Your task to perform on an android device: change alarm snooze length Image 0: 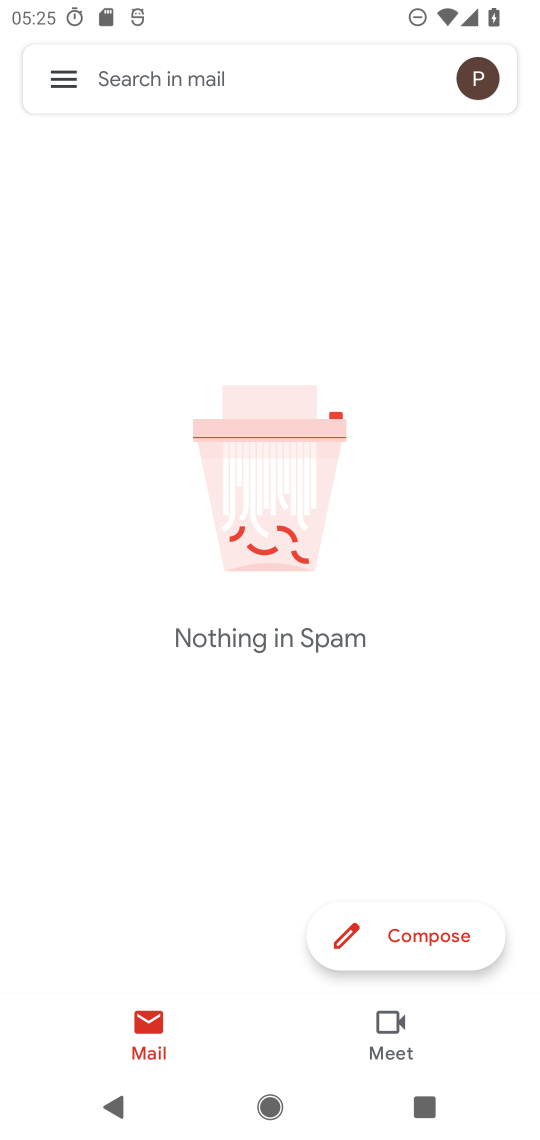
Step 0: press home button
Your task to perform on an android device: change alarm snooze length Image 1: 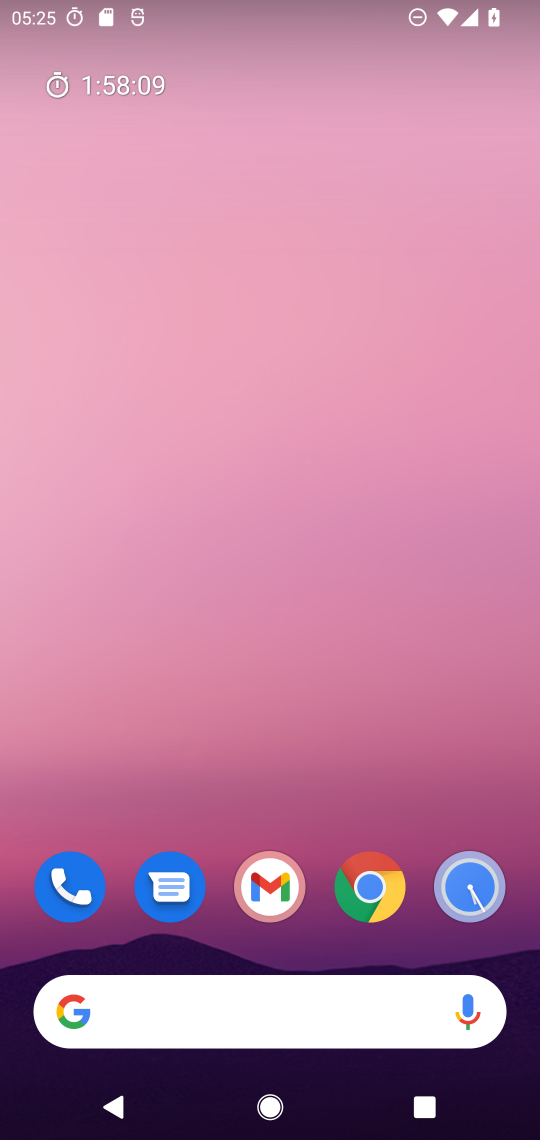
Step 1: drag from (421, 730) to (439, 259)
Your task to perform on an android device: change alarm snooze length Image 2: 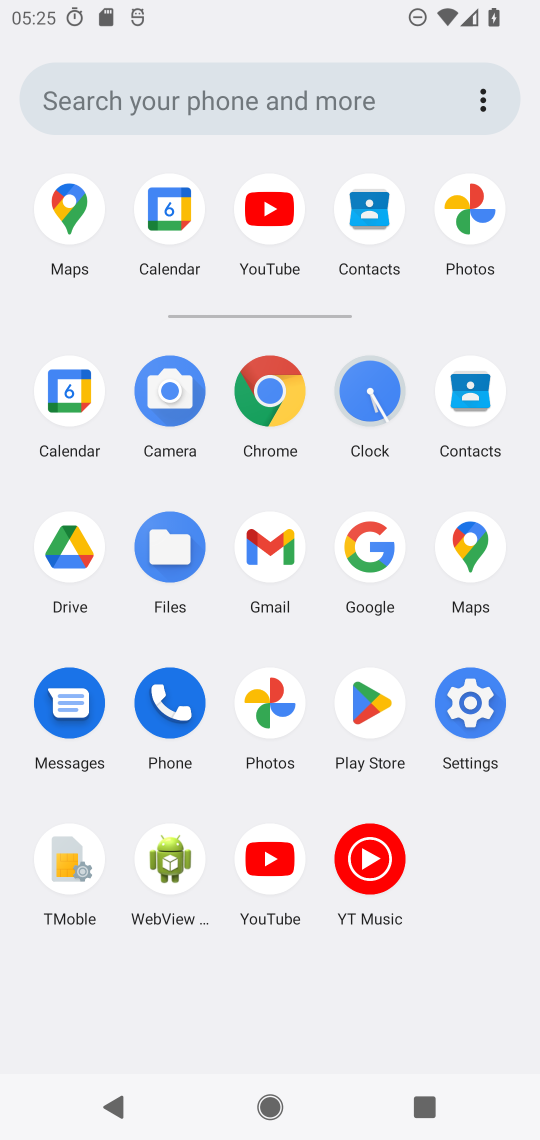
Step 2: click (370, 397)
Your task to perform on an android device: change alarm snooze length Image 3: 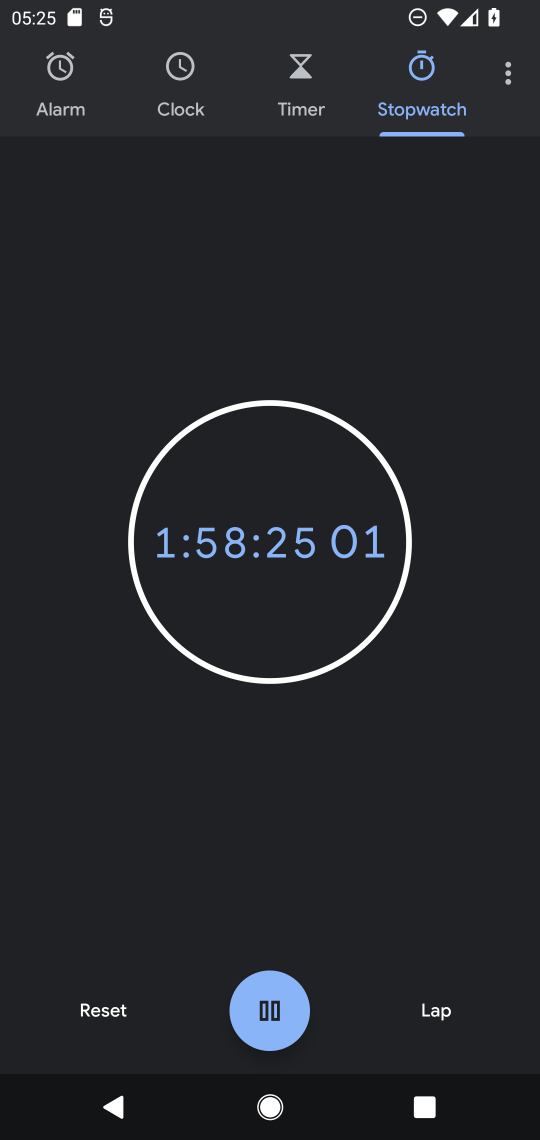
Step 3: click (509, 73)
Your task to perform on an android device: change alarm snooze length Image 4: 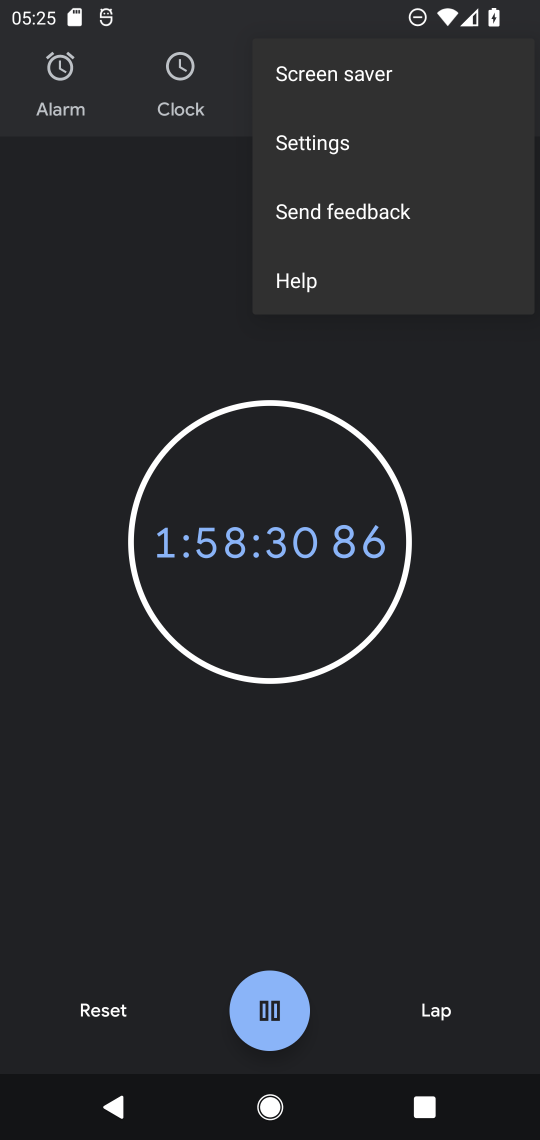
Step 4: click (332, 142)
Your task to perform on an android device: change alarm snooze length Image 5: 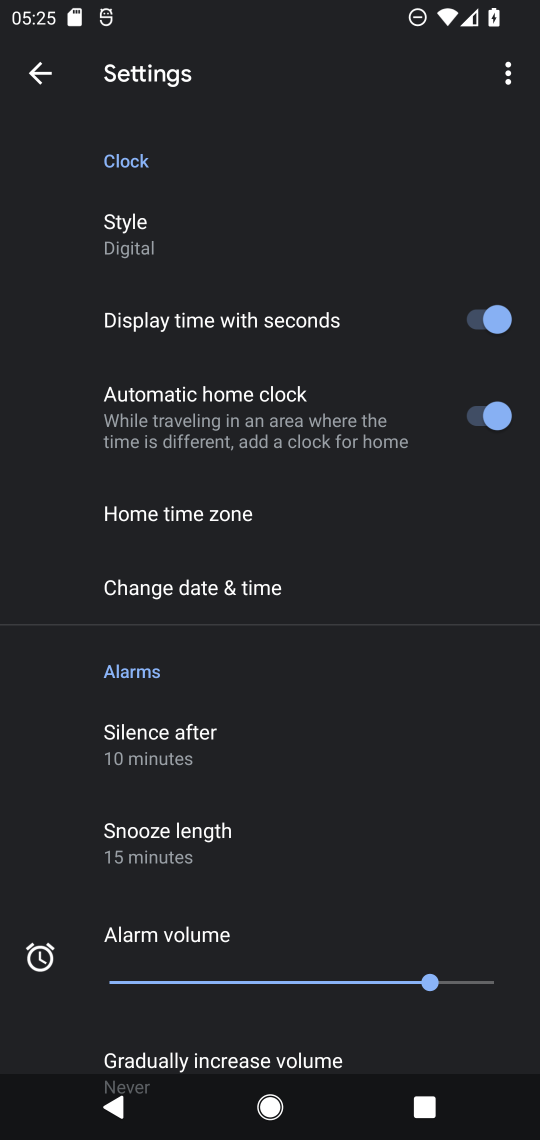
Step 5: drag from (365, 546) to (381, 454)
Your task to perform on an android device: change alarm snooze length Image 6: 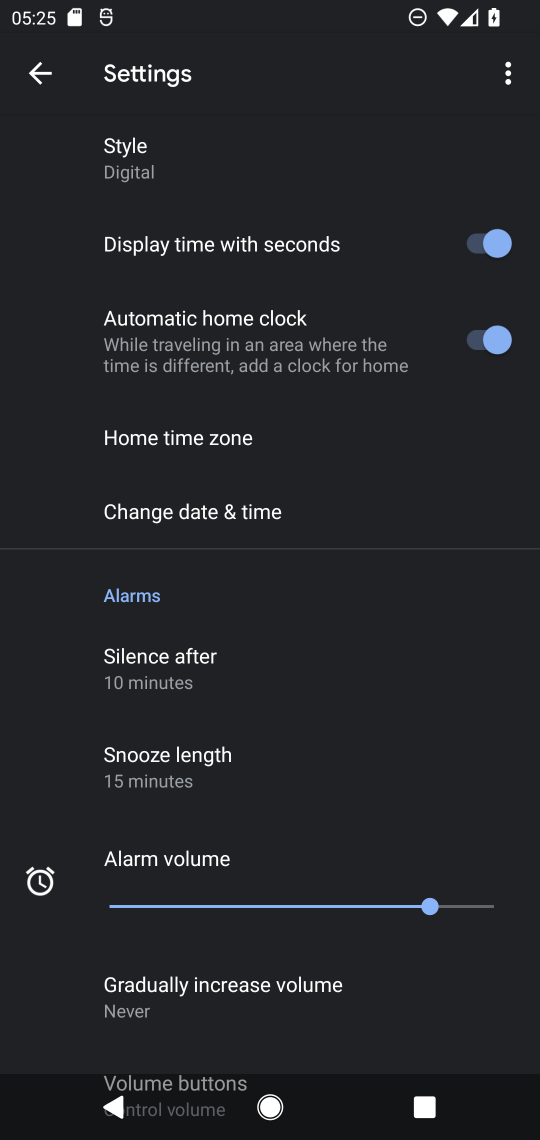
Step 6: drag from (386, 600) to (407, 473)
Your task to perform on an android device: change alarm snooze length Image 7: 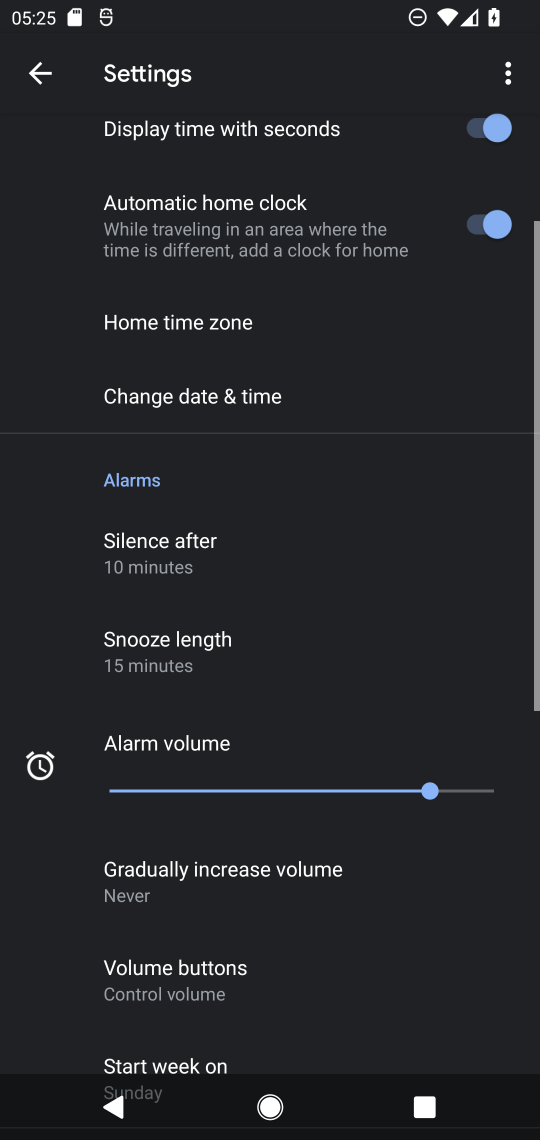
Step 7: drag from (391, 624) to (410, 508)
Your task to perform on an android device: change alarm snooze length Image 8: 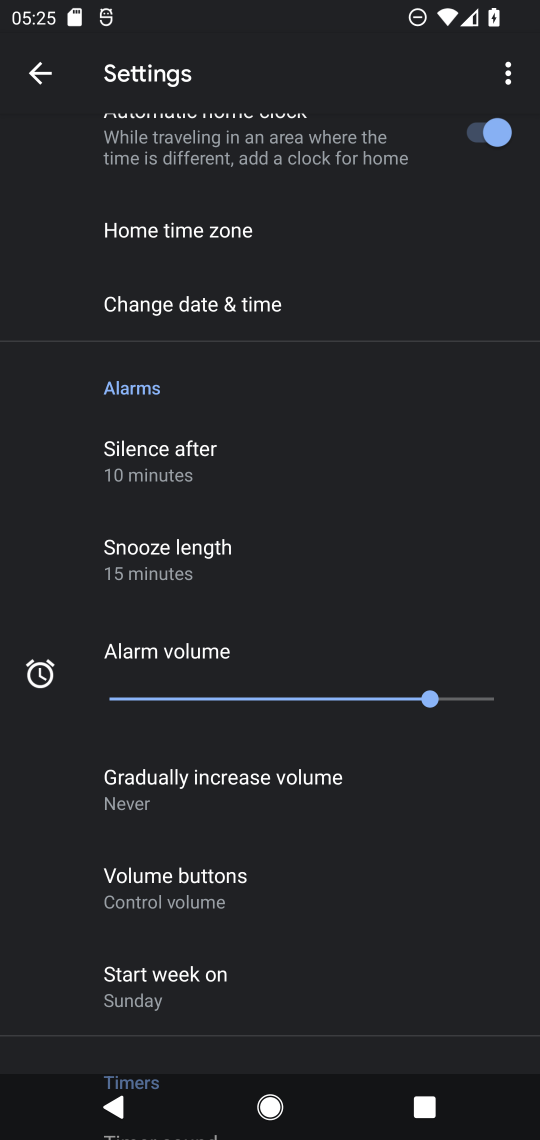
Step 8: drag from (389, 625) to (407, 522)
Your task to perform on an android device: change alarm snooze length Image 9: 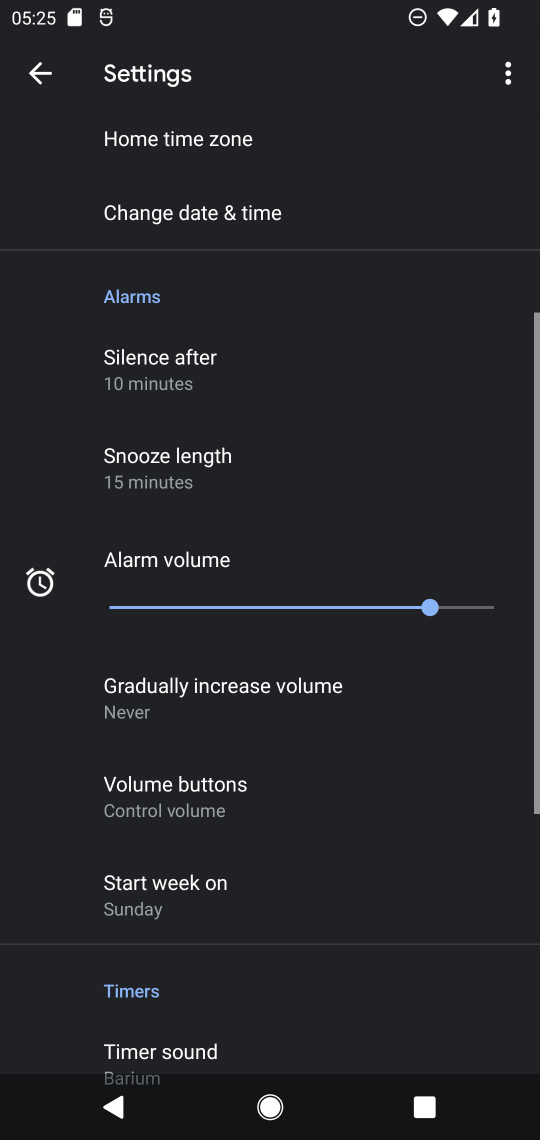
Step 9: drag from (384, 703) to (388, 565)
Your task to perform on an android device: change alarm snooze length Image 10: 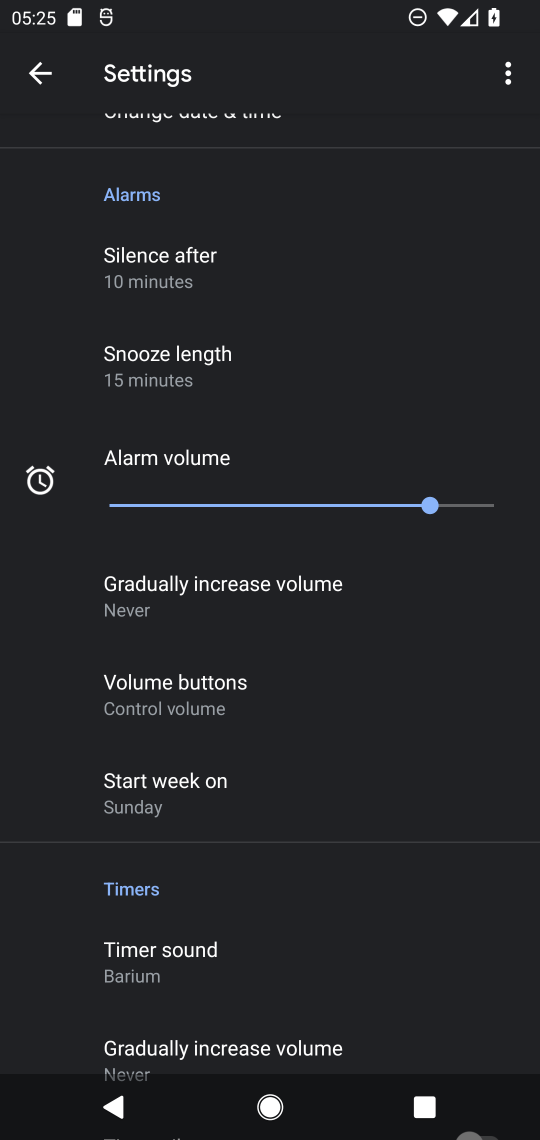
Step 10: click (186, 377)
Your task to perform on an android device: change alarm snooze length Image 11: 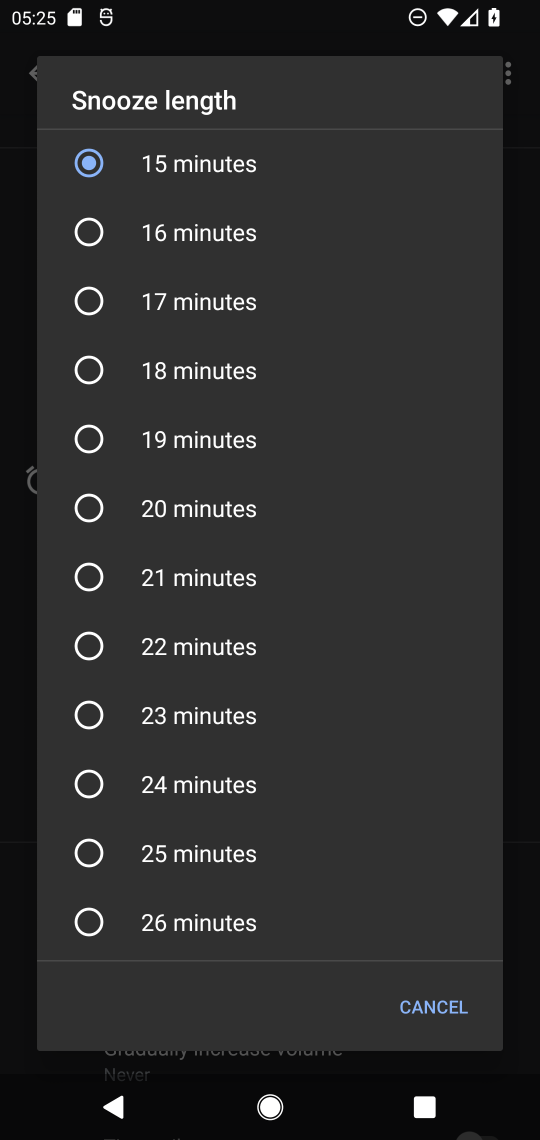
Step 11: click (196, 504)
Your task to perform on an android device: change alarm snooze length Image 12: 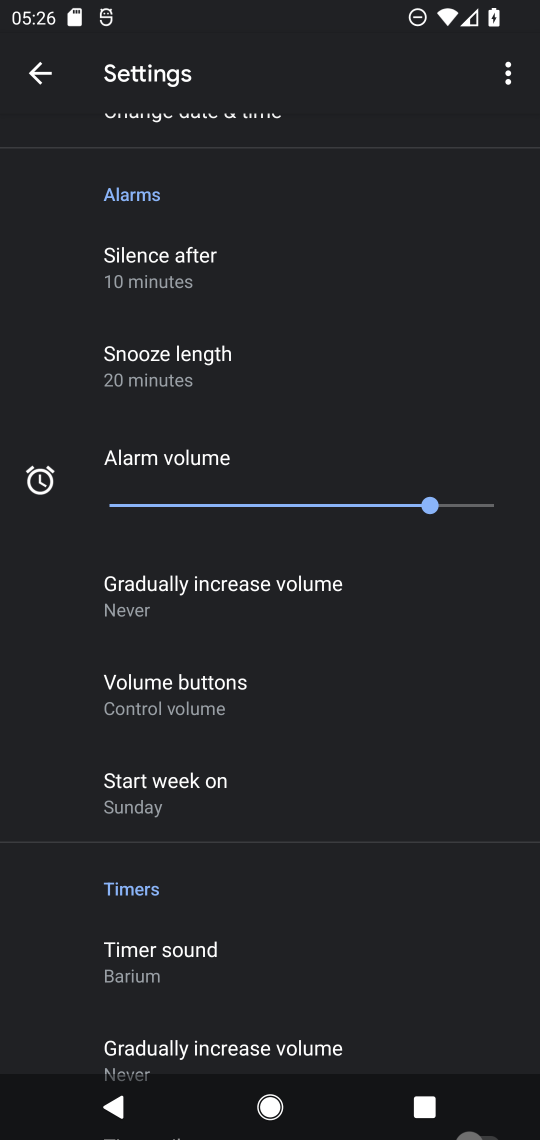
Step 12: task complete